Your task to perform on an android device: What's the news this week? Image 0: 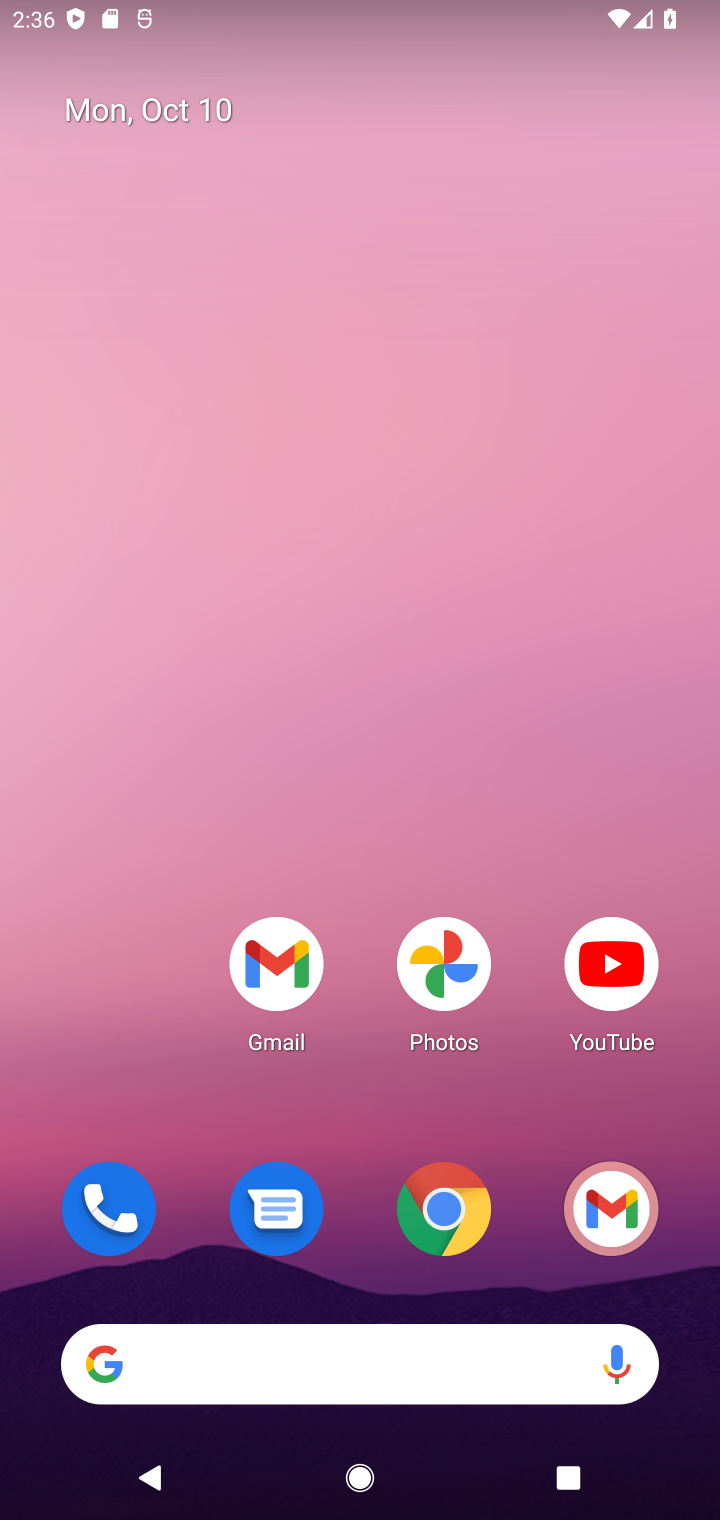
Step 0: click (429, 1193)
Your task to perform on an android device: What's the news this week? Image 1: 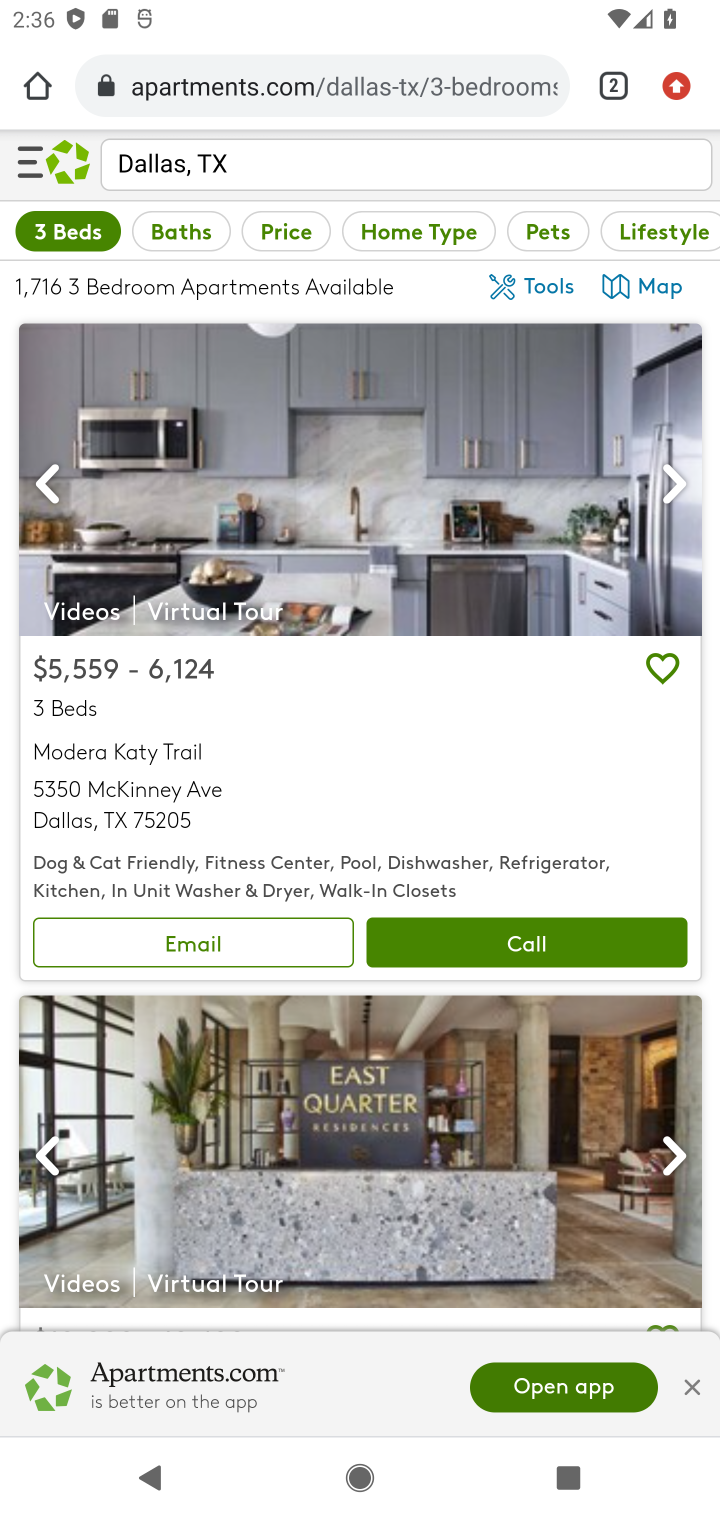
Step 1: click (285, 89)
Your task to perform on an android device: What's the news this week? Image 2: 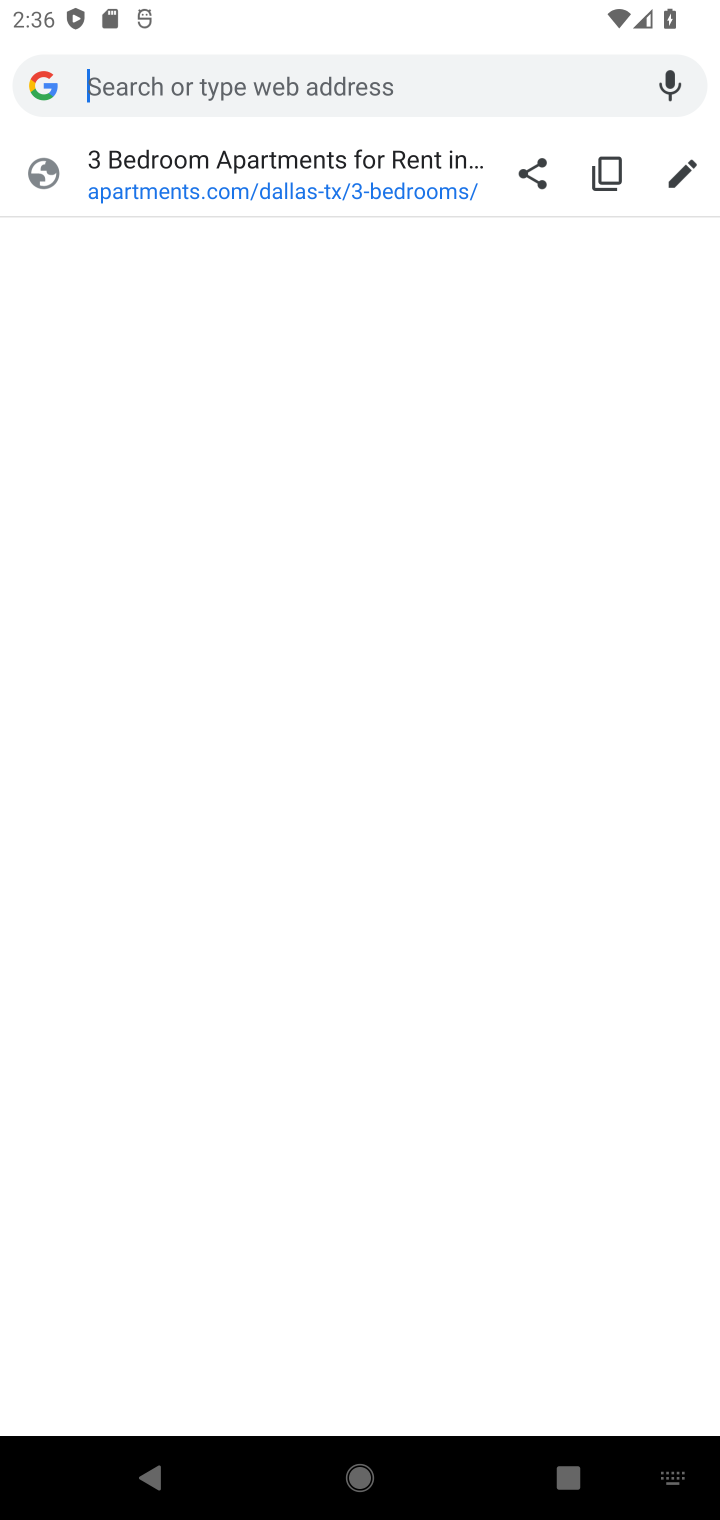
Step 2: type "news this week"
Your task to perform on an android device: What's the news this week? Image 3: 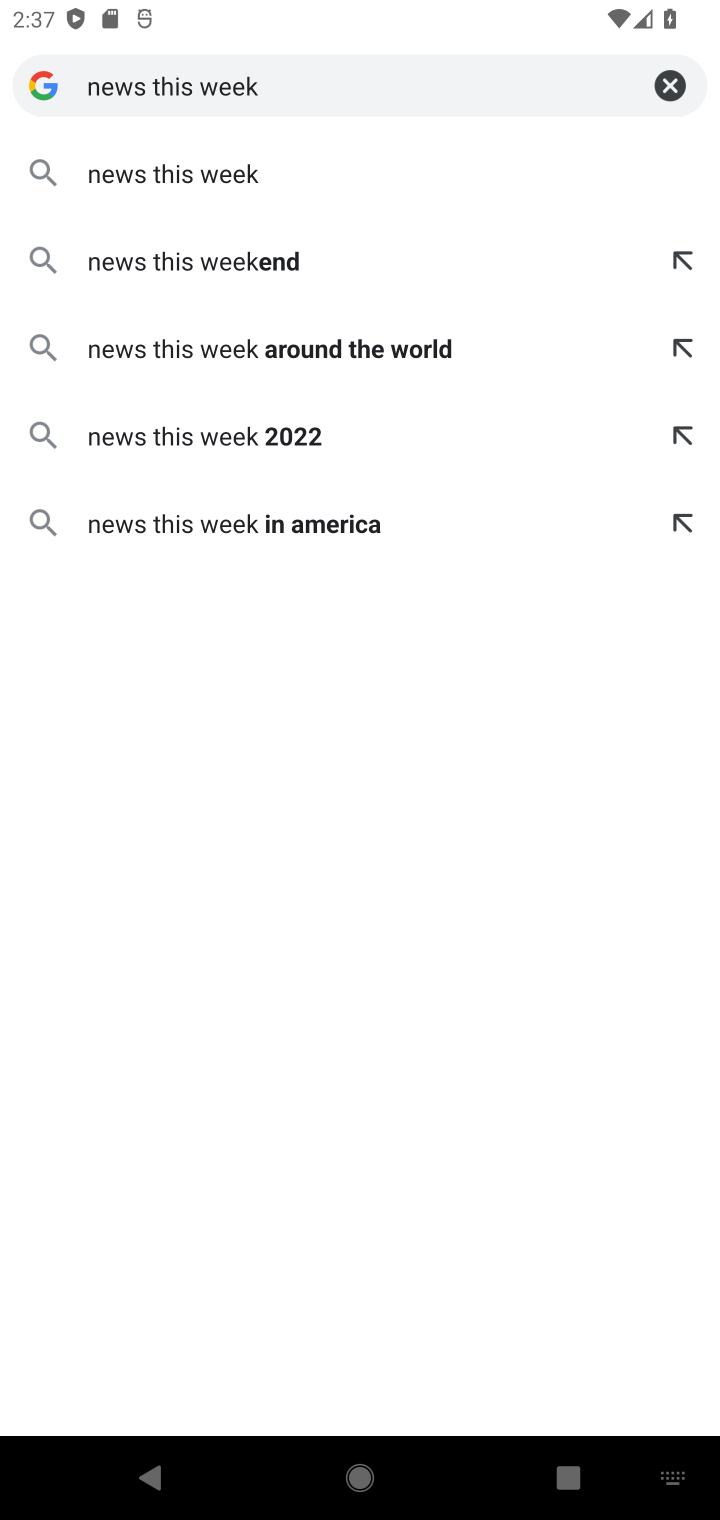
Step 3: click (233, 186)
Your task to perform on an android device: What's the news this week? Image 4: 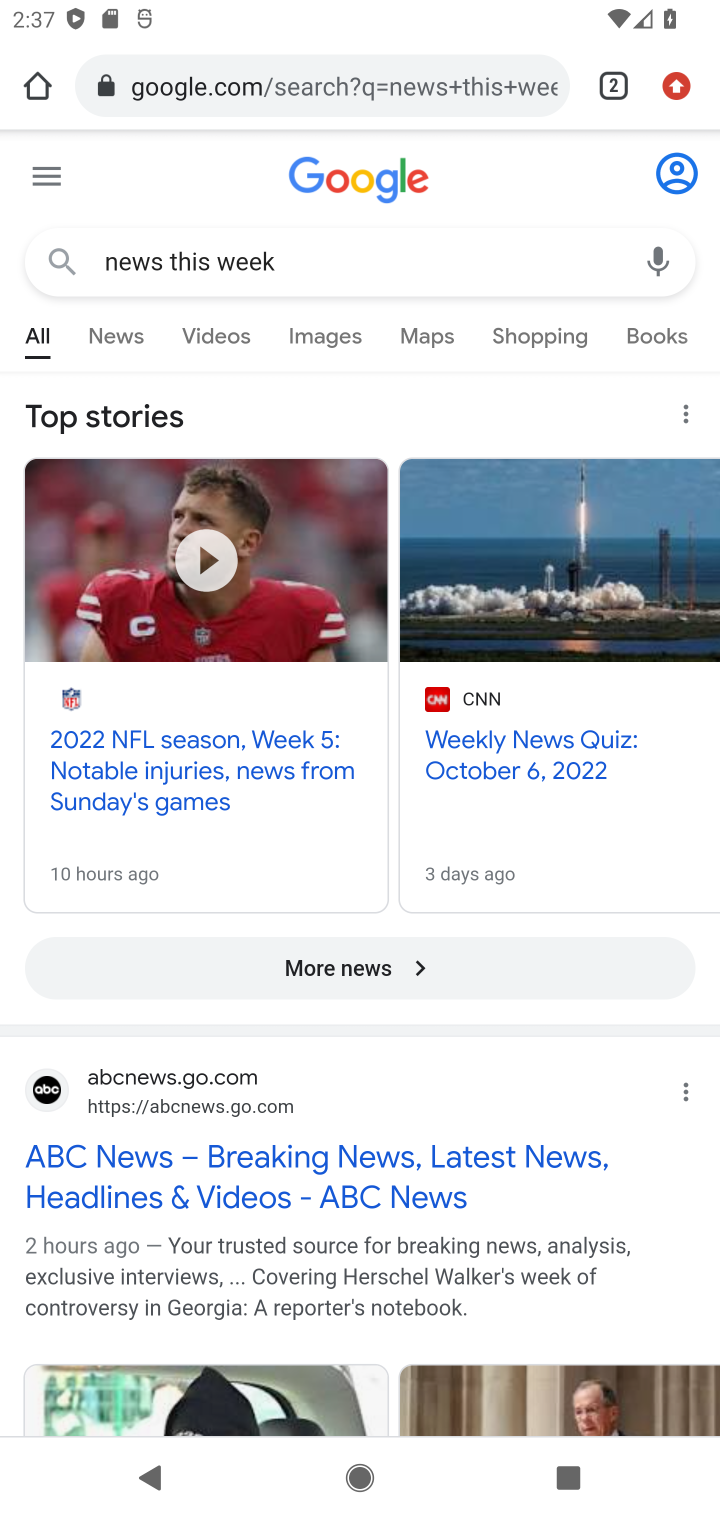
Step 4: click (128, 332)
Your task to perform on an android device: What's the news this week? Image 5: 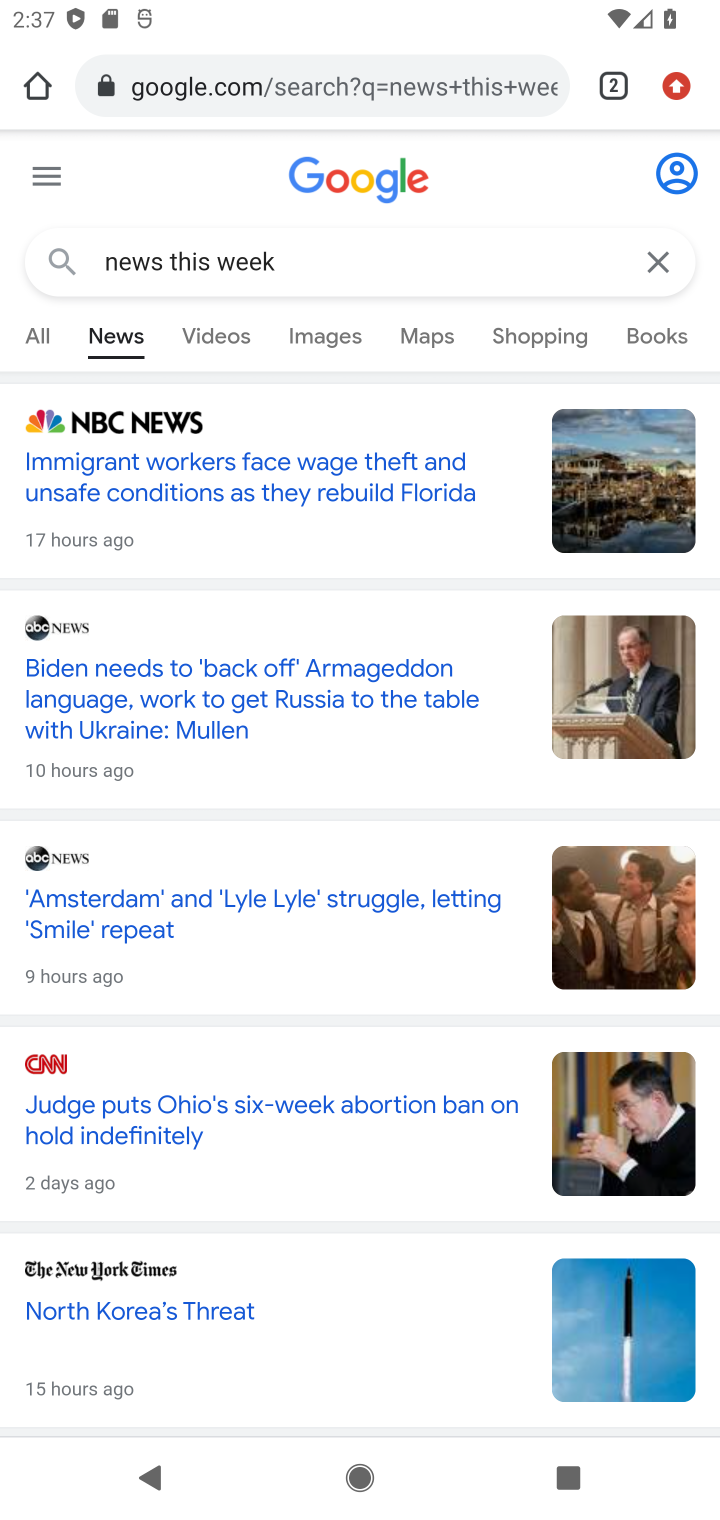
Step 5: task complete